Your task to perform on an android device: refresh tabs in the chrome app Image 0: 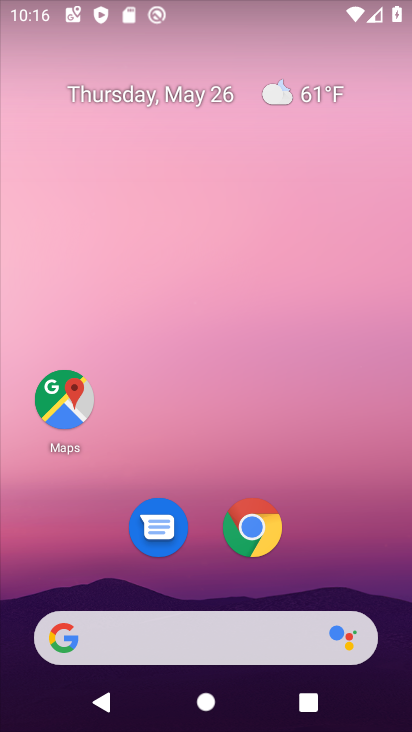
Step 0: click (255, 517)
Your task to perform on an android device: refresh tabs in the chrome app Image 1: 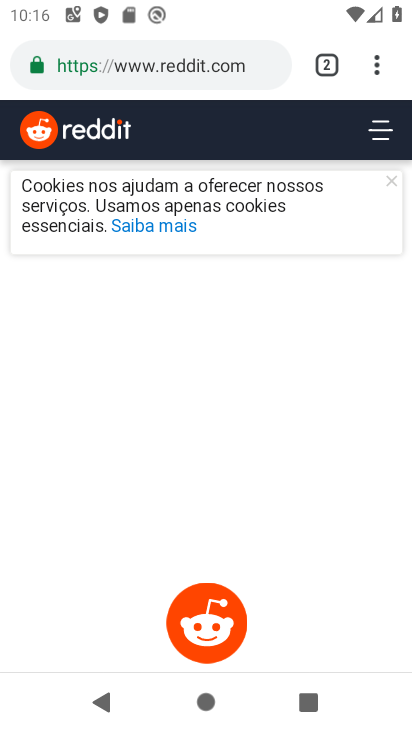
Step 1: click (374, 62)
Your task to perform on an android device: refresh tabs in the chrome app Image 2: 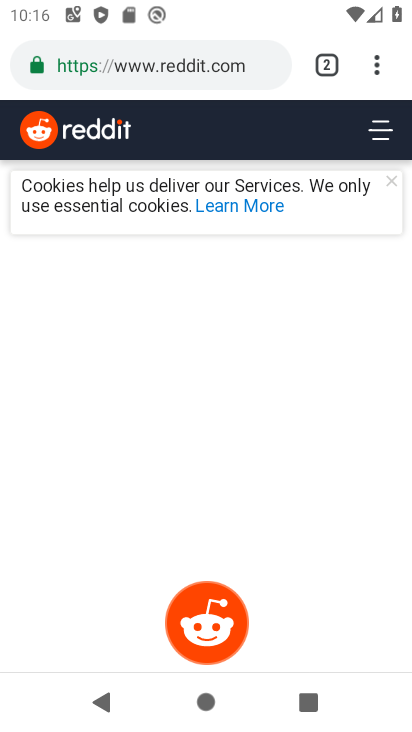
Step 2: task complete